Your task to perform on an android device: snooze an email in the gmail app Image 0: 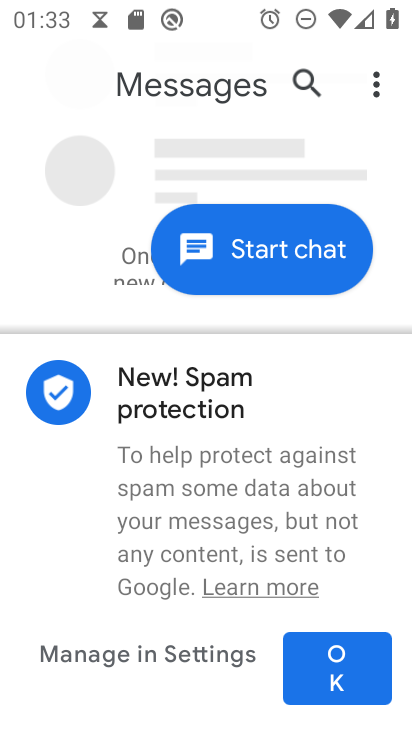
Step 0: press home button
Your task to perform on an android device: snooze an email in the gmail app Image 1: 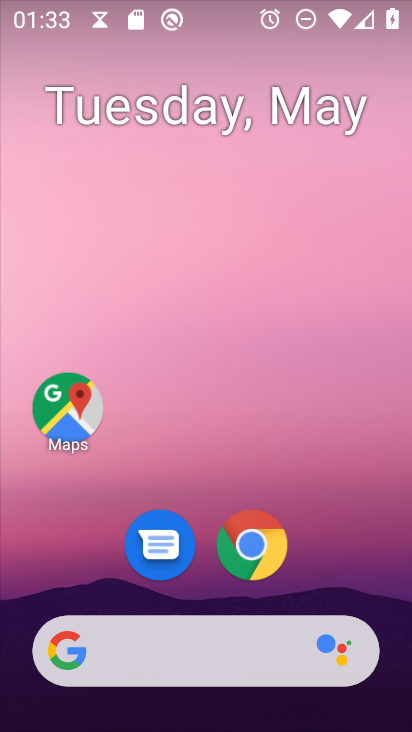
Step 1: drag from (343, 597) to (324, 67)
Your task to perform on an android device: snooze an email in the gmail app Image 2: 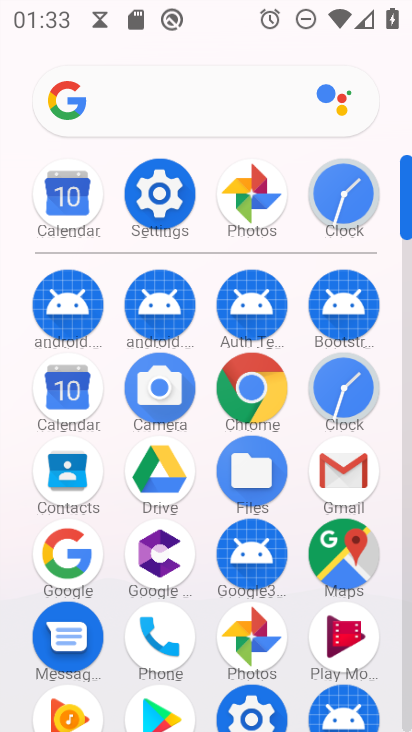
Step 2: click (334, 479)
Your task to perform on an android device: snooze an email in the gmail app Image 3: 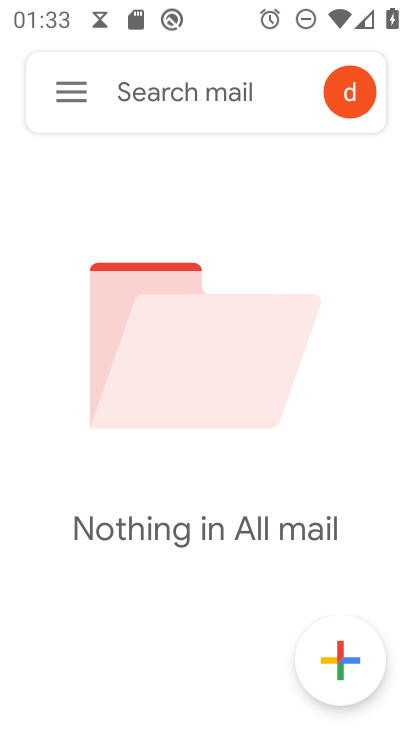
Step 3: task complete